Your task to perform on an android device: Open Amazon Image 0: 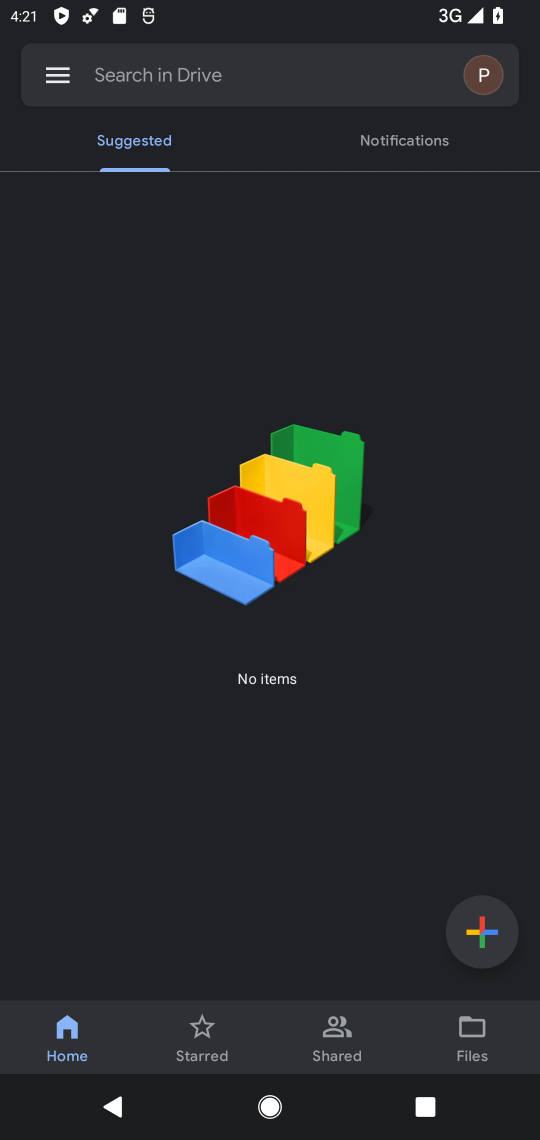
Step 0: press home button
Your task to perform on an android device: Open Amazon Image 1: 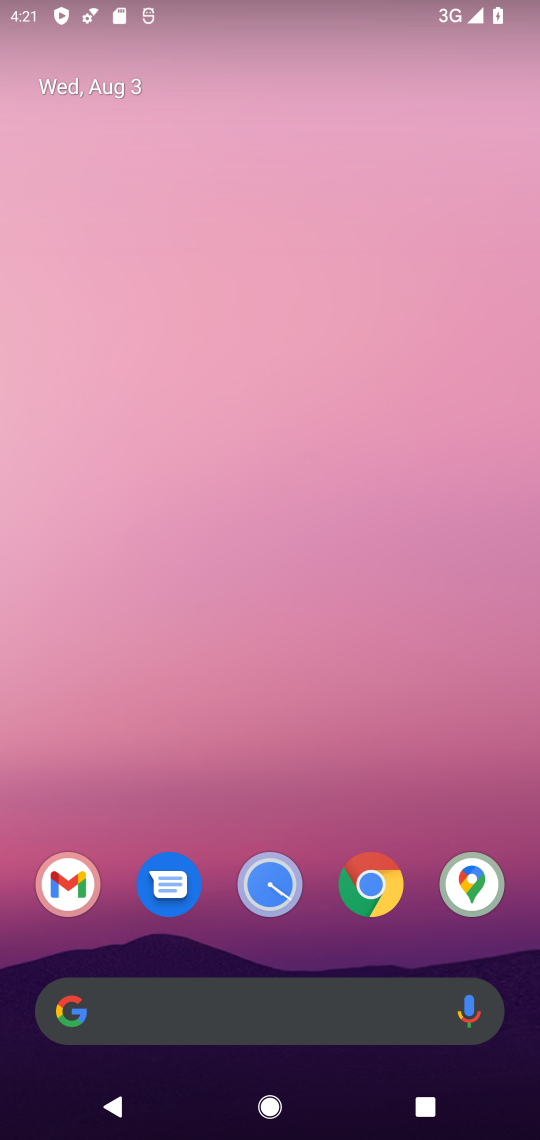
Step 1: click (380, 885)
Your task to perform on an android device: Open Amazon Image 2: 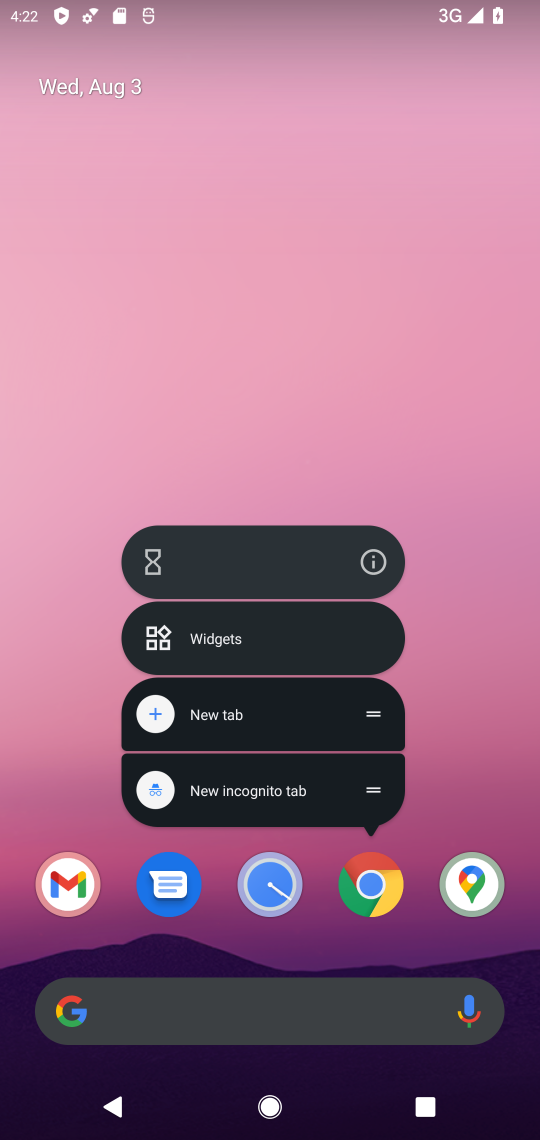
Step 2: click (349, 902)
Your task to perform on an android device: Open Amazon Image 3: 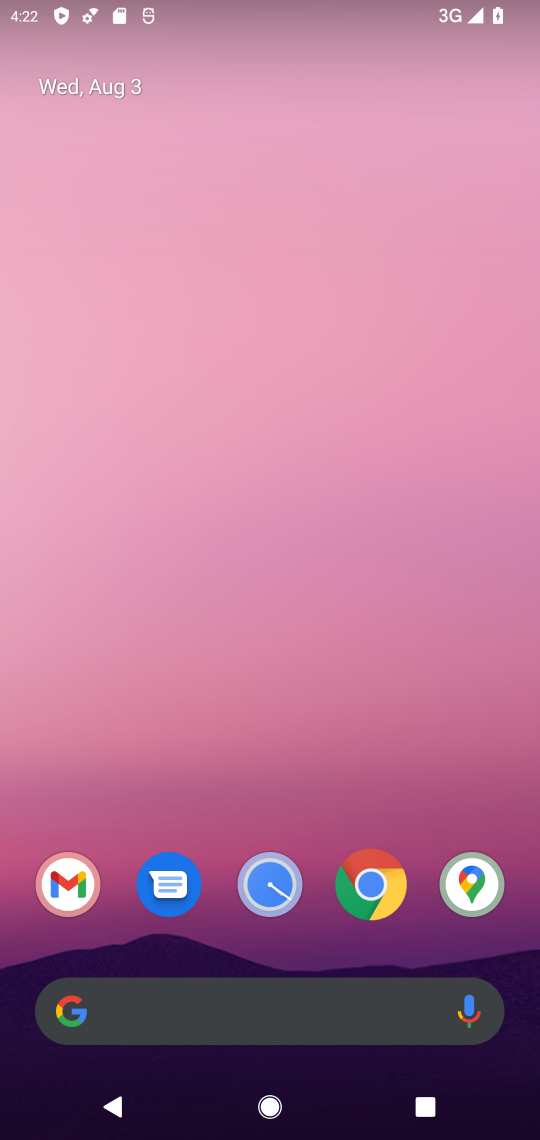
Step 3: click (387, 909)
Your task to perform on an android device: Open Amazon Image 4: 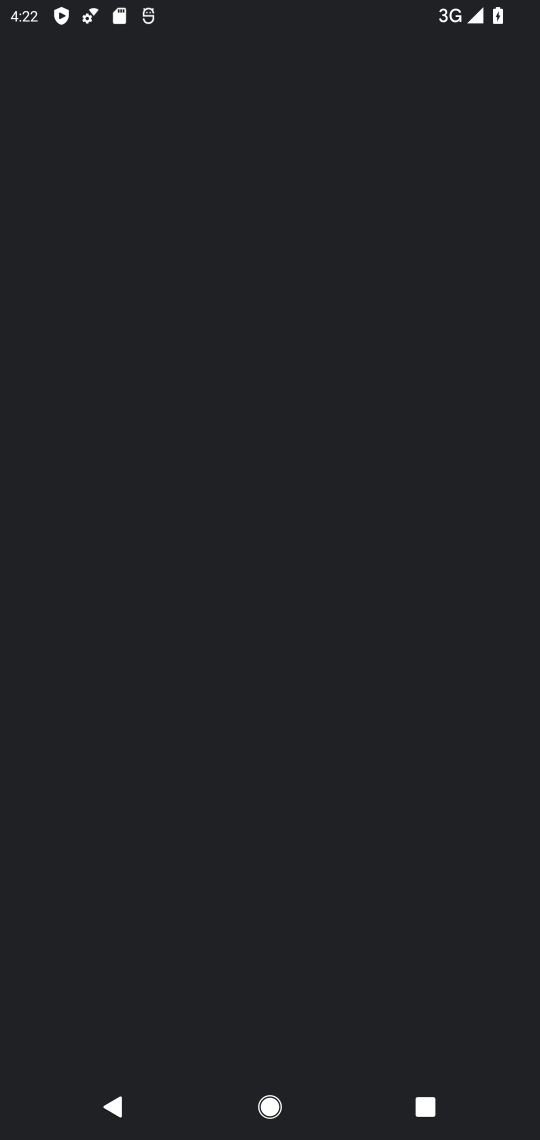
Step 4: task complete